Your task to perform on an android device: turn on bluetooth scan Image 0: 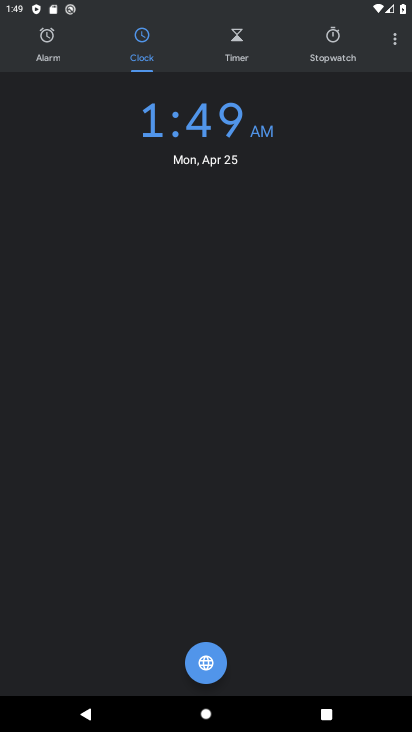
Step 0: press home button
Your task to perform on an android device: turn on bluetooth scan Image 1: 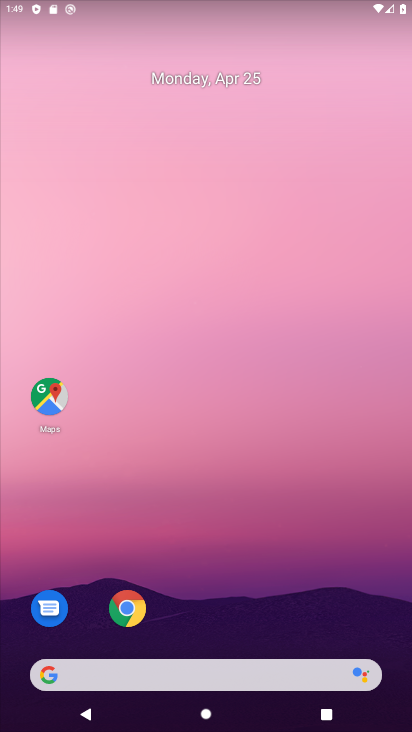
Step 1: drag from (248, 238) to (251, 186)
Your task to perform on an android device: turn on bluetooth scan Image 2: 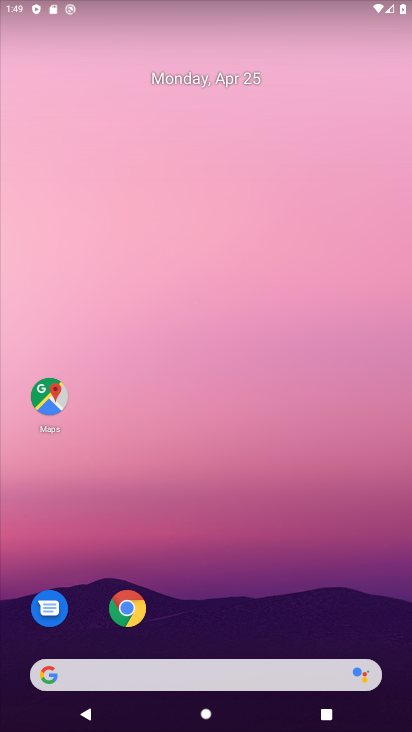
Step 2: drag from (217, 635) to (246, 189)
Your task to perform on an android device: turn on bluetooth scan Image 3: 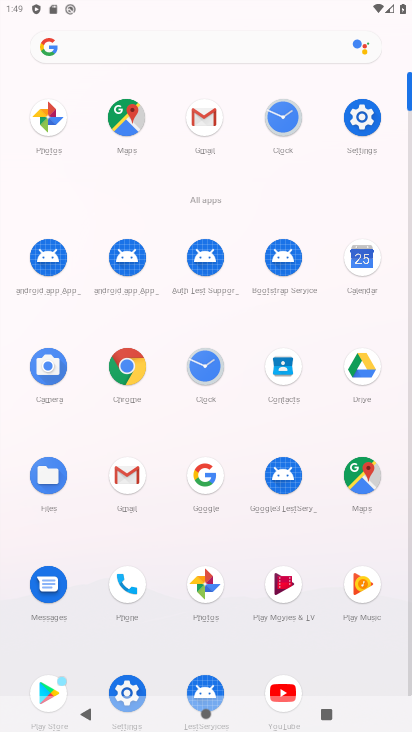
Step 3: click (361, 119)
Your task to perform on an android device: turn on bluetooth scan Image 4: 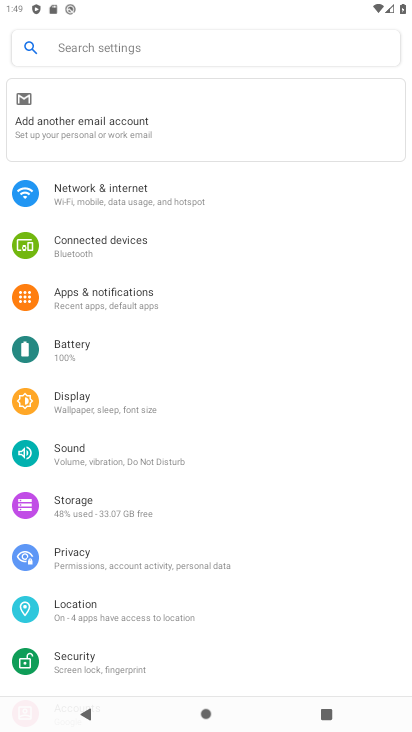
Step 4: click (101, 597)
Your task to perform on an android device: turn on bluetooth scan Image 5: 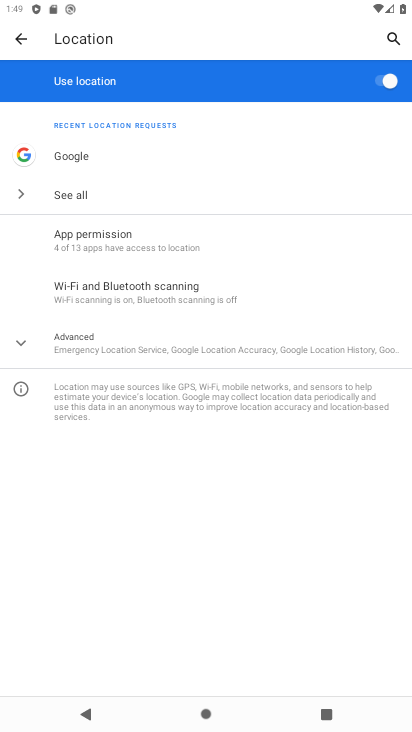
Step 5: click (132, 298)
Your task to perform on an android device: turn on bluetooth scan Image 6: 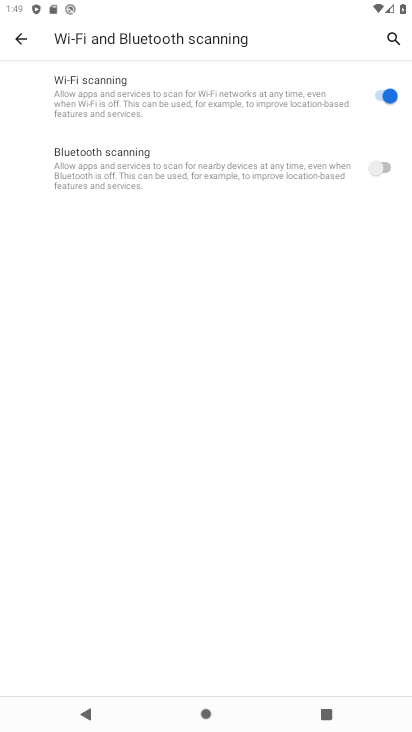
Step 6: click (385, 169)
Your task to perform on an android device: turn on bluetooth scan Image 7: 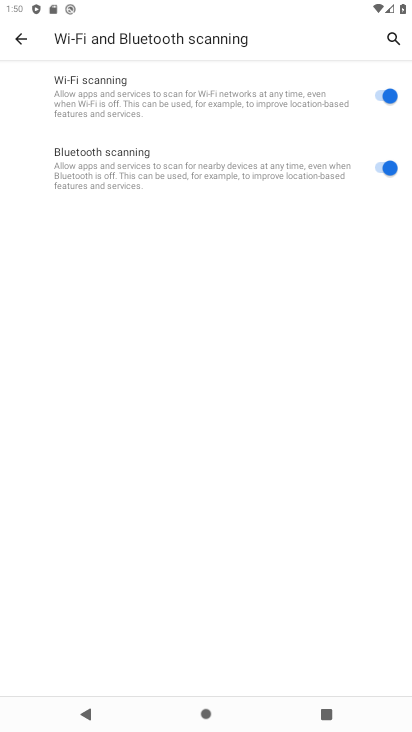
Step 7: task complete